Your task to perform on an android device: Clear all items from cart on target. Search for "logitech g pro" on target, select the first entry, and add it to the cart. Image 0: 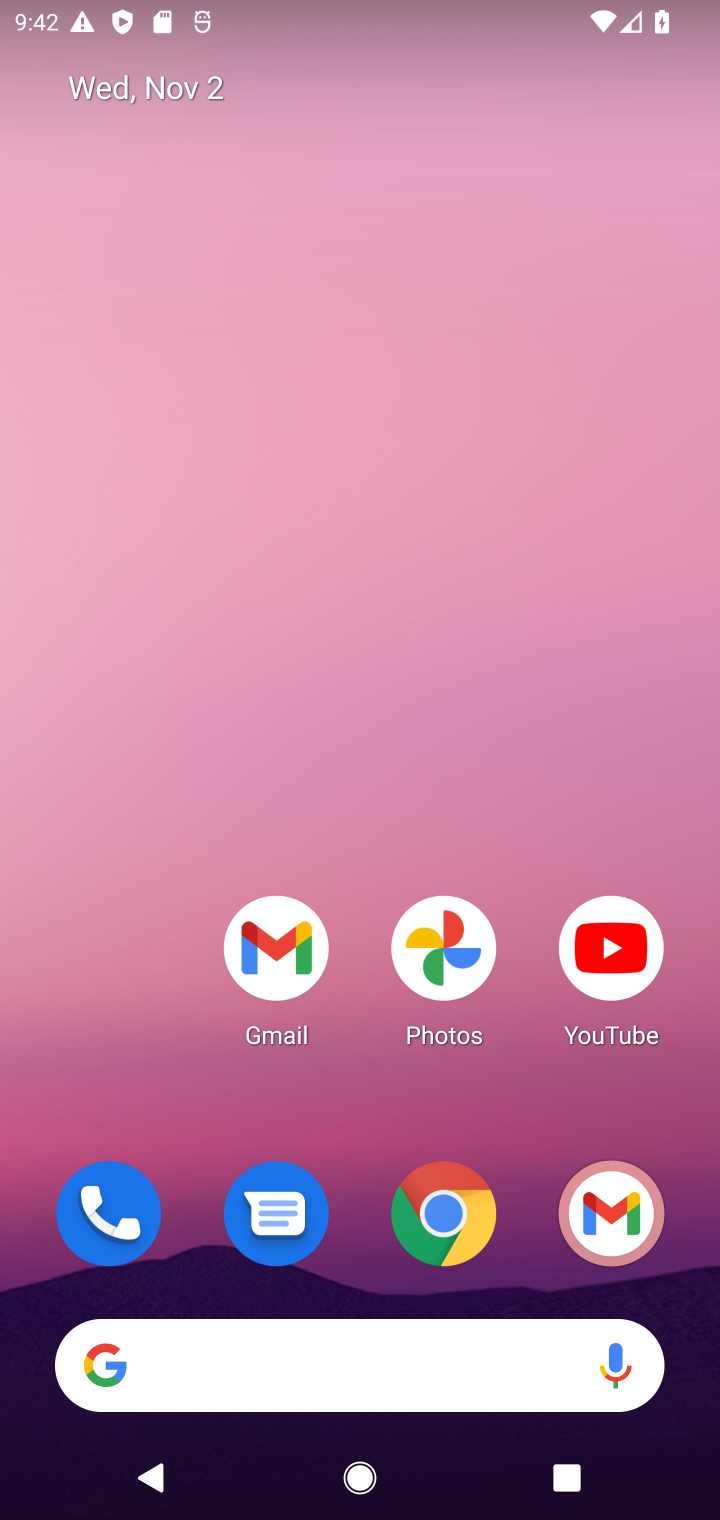
Step 0: click (455, 1220)
Your task to perform on an android device: Clear all items from cart on target. Search for "logitech g pro" on target, select the first entry, and add it to the cart. Image 1: 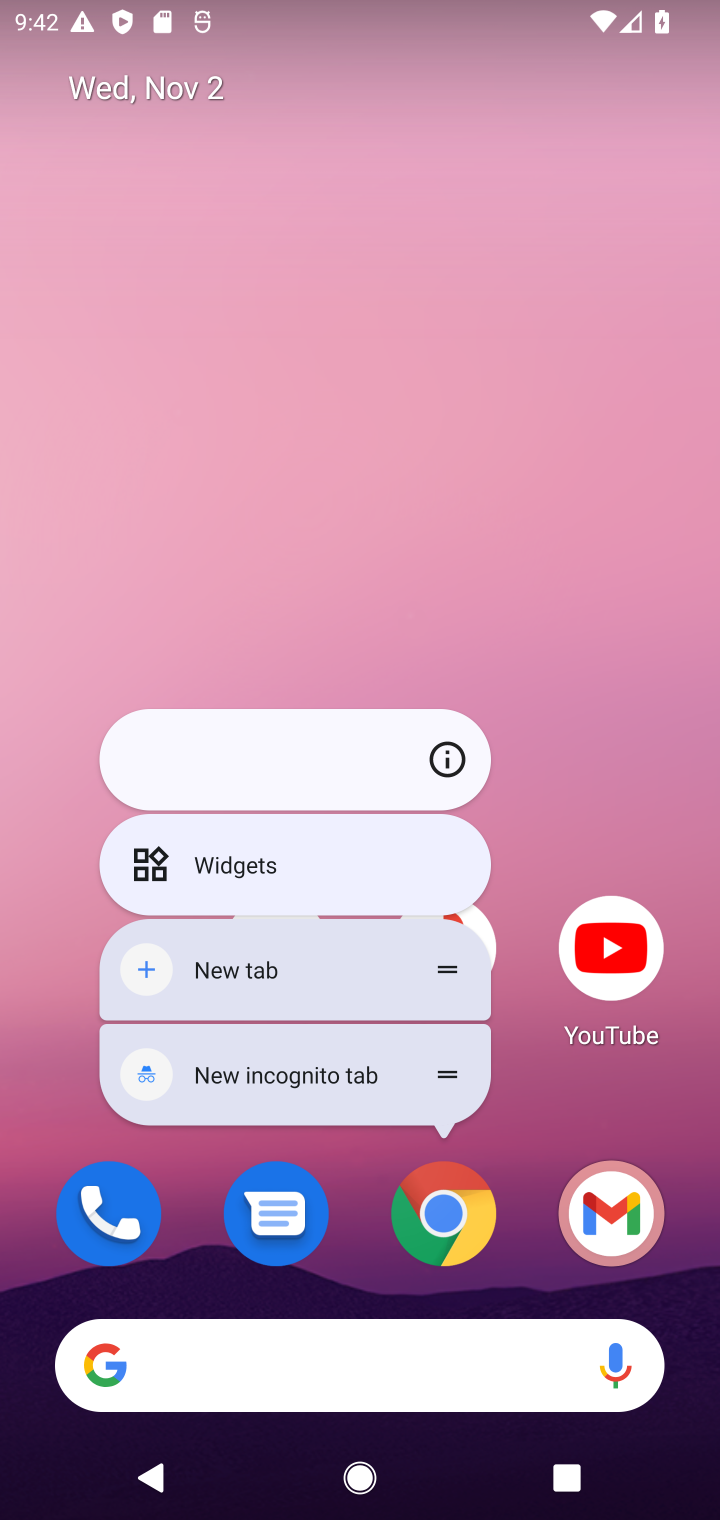
Step 1: click (455, 1220)
Your task to perform on an android device: Clear all items from cart on target. Search for "logitech g pro" on target, select the first entry, and add it to the cart. Image 2: 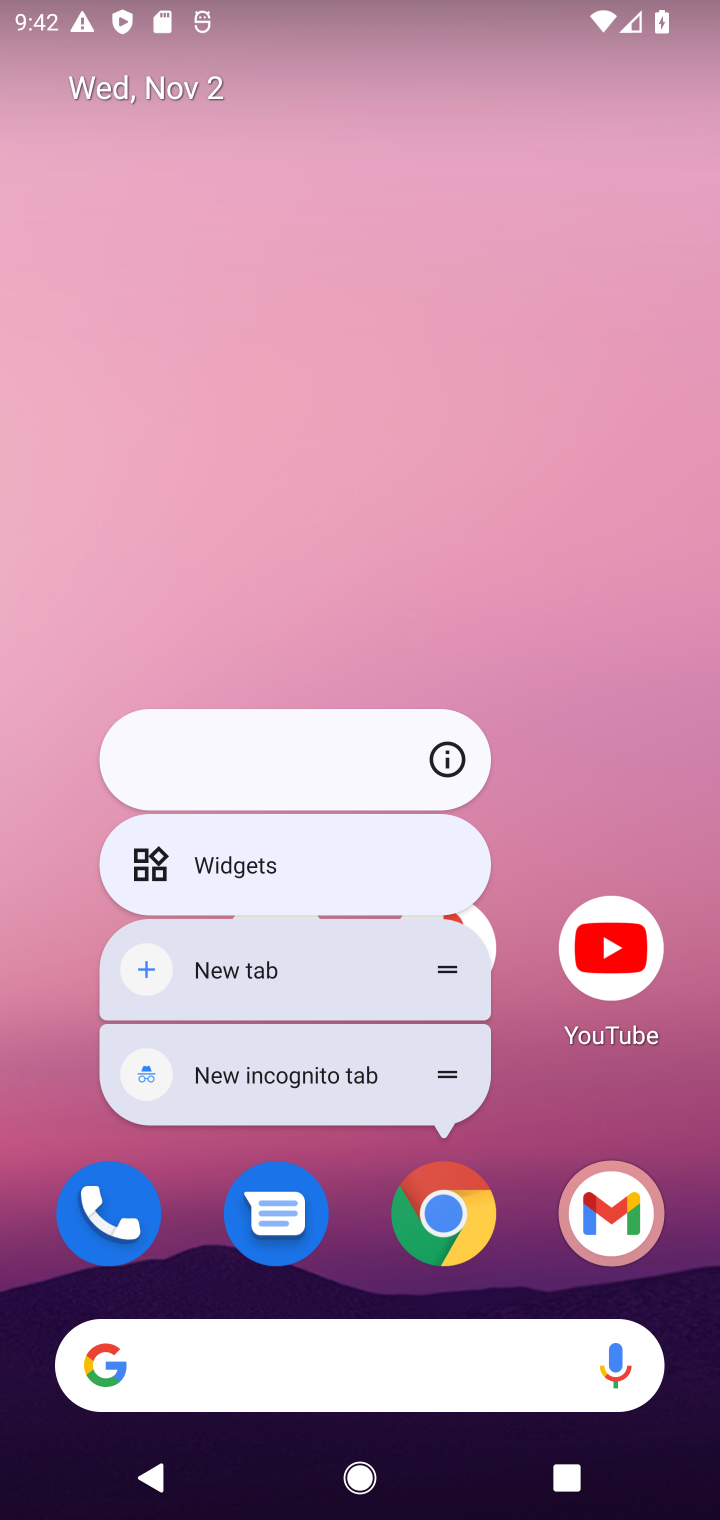
Step 2: click (455, 1220)
Your task to perform on an android device: Clear all items from cart on target. Search for "logitech g pro" on target, select the first entry, and add it to the cart. Image 3: 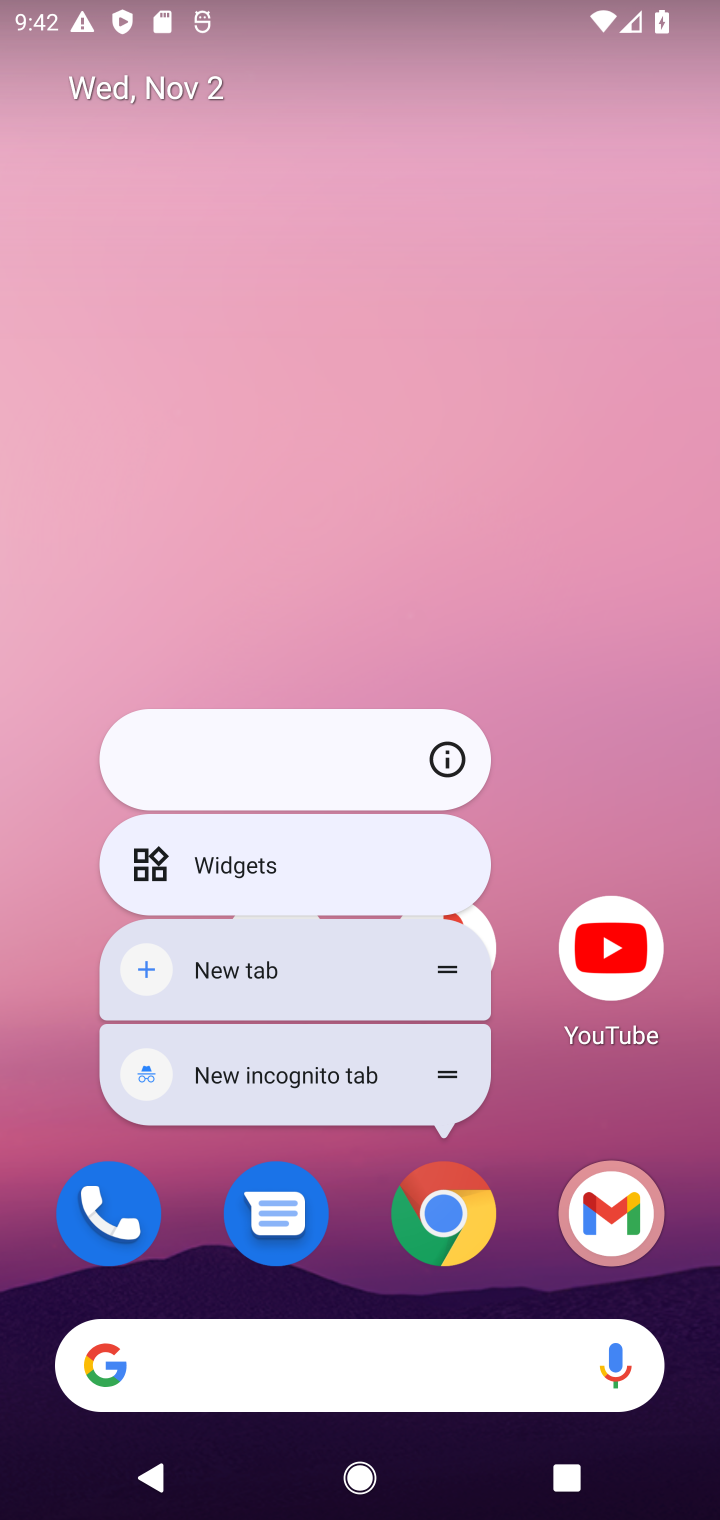
Step 3: click (455, 1220)
Your task to perform on an android device: Clear all items from cart on target. Search for "logitech g pro" on target, select the first entry, and add it to the cart. Image 4: 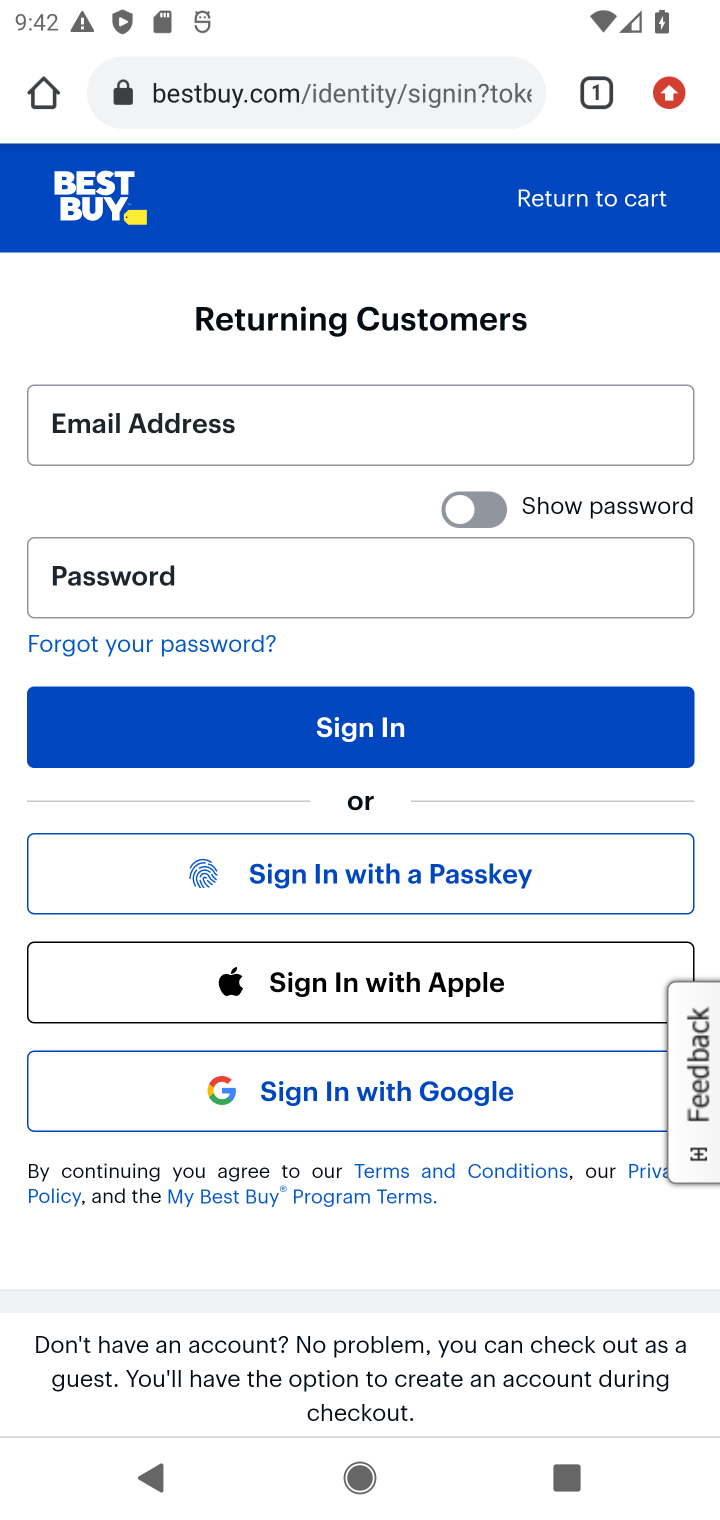
Step 4: click (323, 100)
Your task to perform on an android device: Clear all items from cart on target. Search for "logitech g pro" on target, select the first entry, and add it to the cart. Image 5: 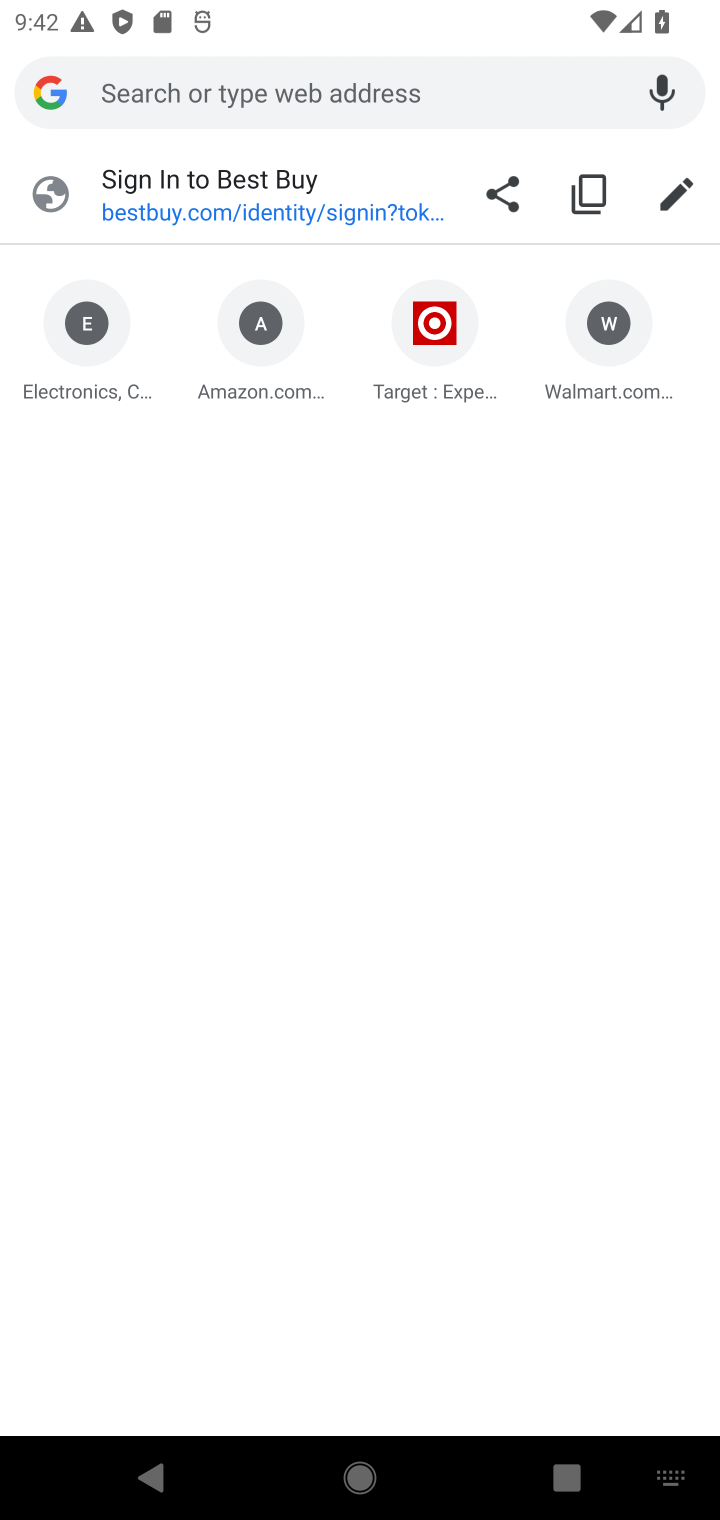
Step 5: click (430, 368)
Your task to perform on an android device: Clear all items from cart on target. Search for "logitech g pro" on target, select the first entry, and add it to the cart. Image 6: 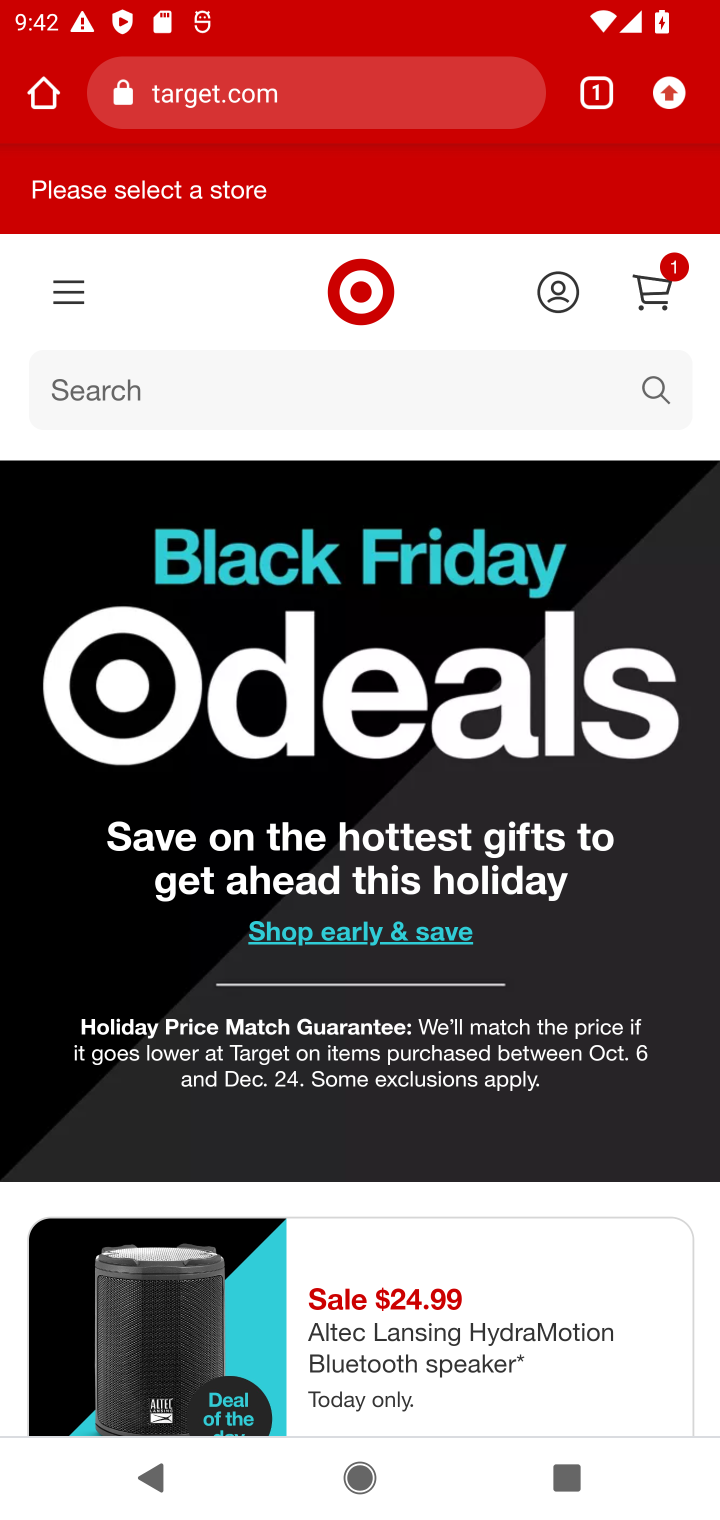
Step 6: click (668, 267)
Your task to perform on an android device: Clear all items from cart on target. Search for "logitech g pro" on target, select the first entry, and add it to the cart. Image 7: 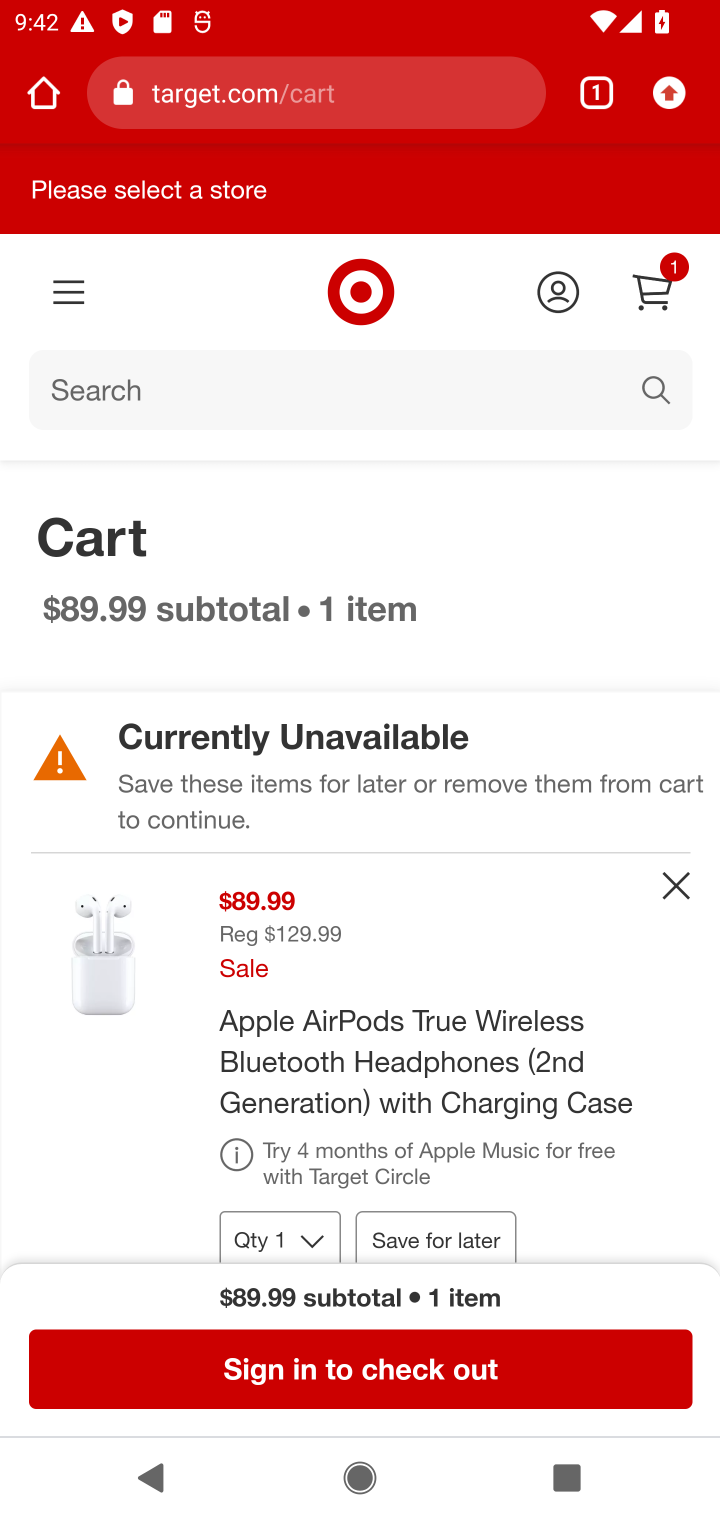
Step 7: click (658, 876)
Your task to perform on an android device: Clear all items from cart on target. Search for "logitech g pro" on target, select the first entry, and add it to the cart. Image 8: 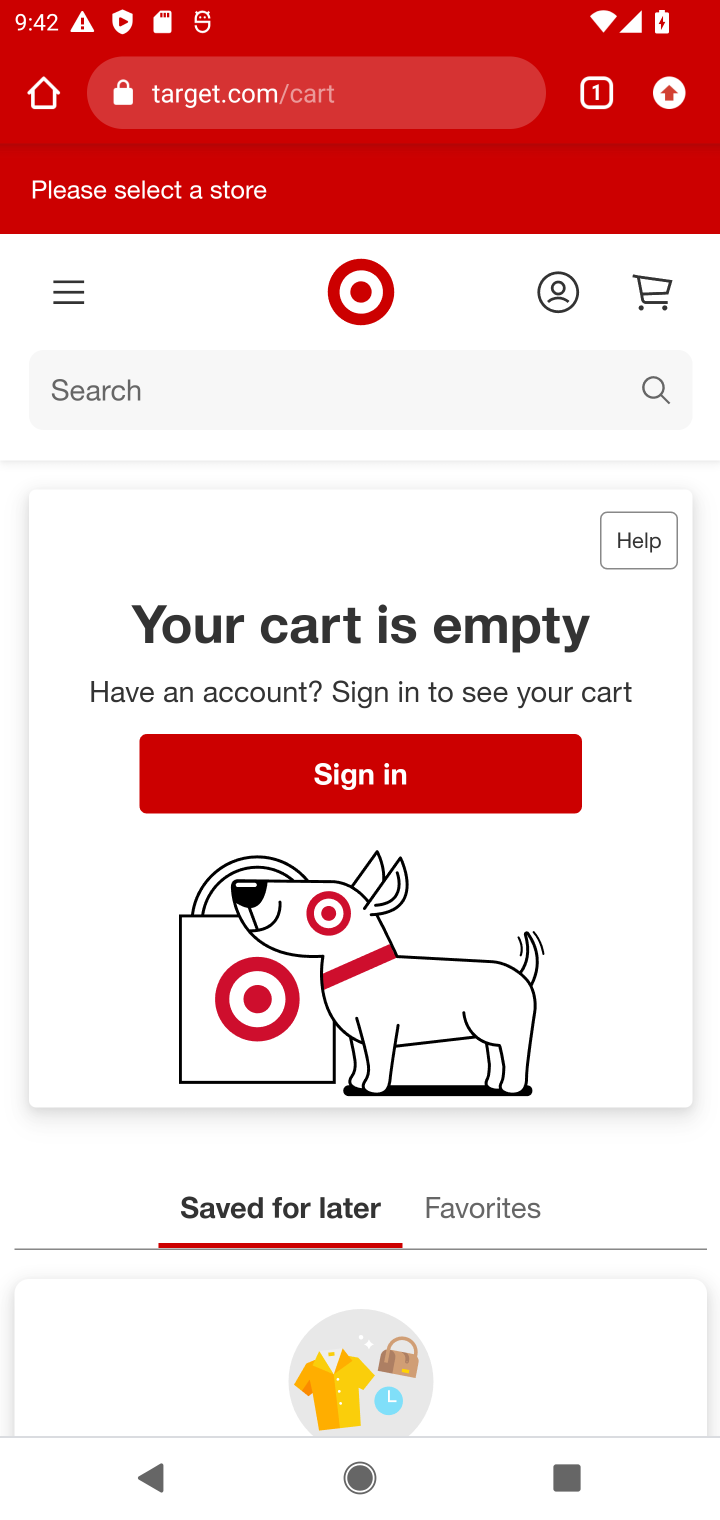
Step 8: click (646, 393)
Your task to perform on an android device: Clear all items from cart on target. Search for "logitech g pro" on target, select the first entry, and add it to the cart. Image 9: 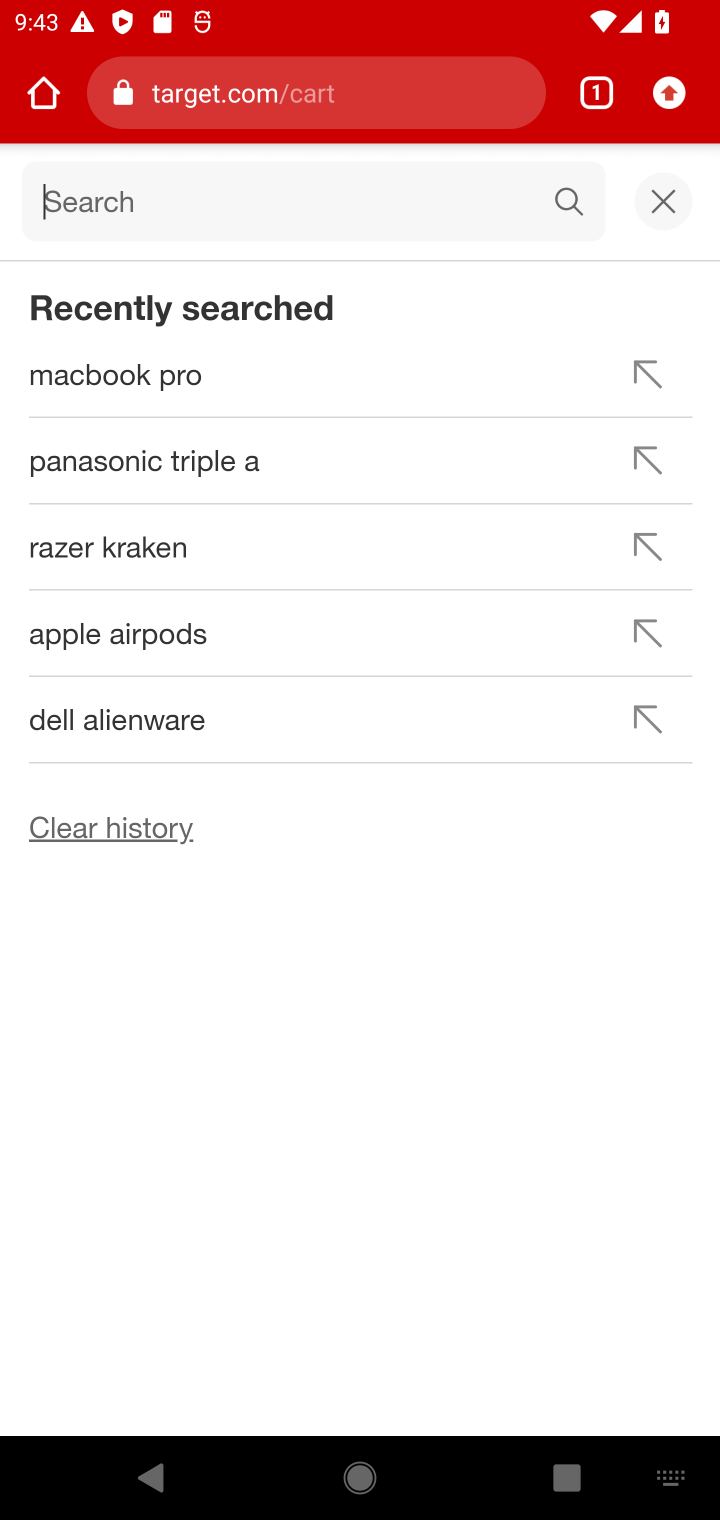
Step 9: type "logitech g pro"
Your task to perform on an android device: Clear all items from cart on target. Search for "logitech g pro" on target, select the first entry, and add it to the cart. Image 10: 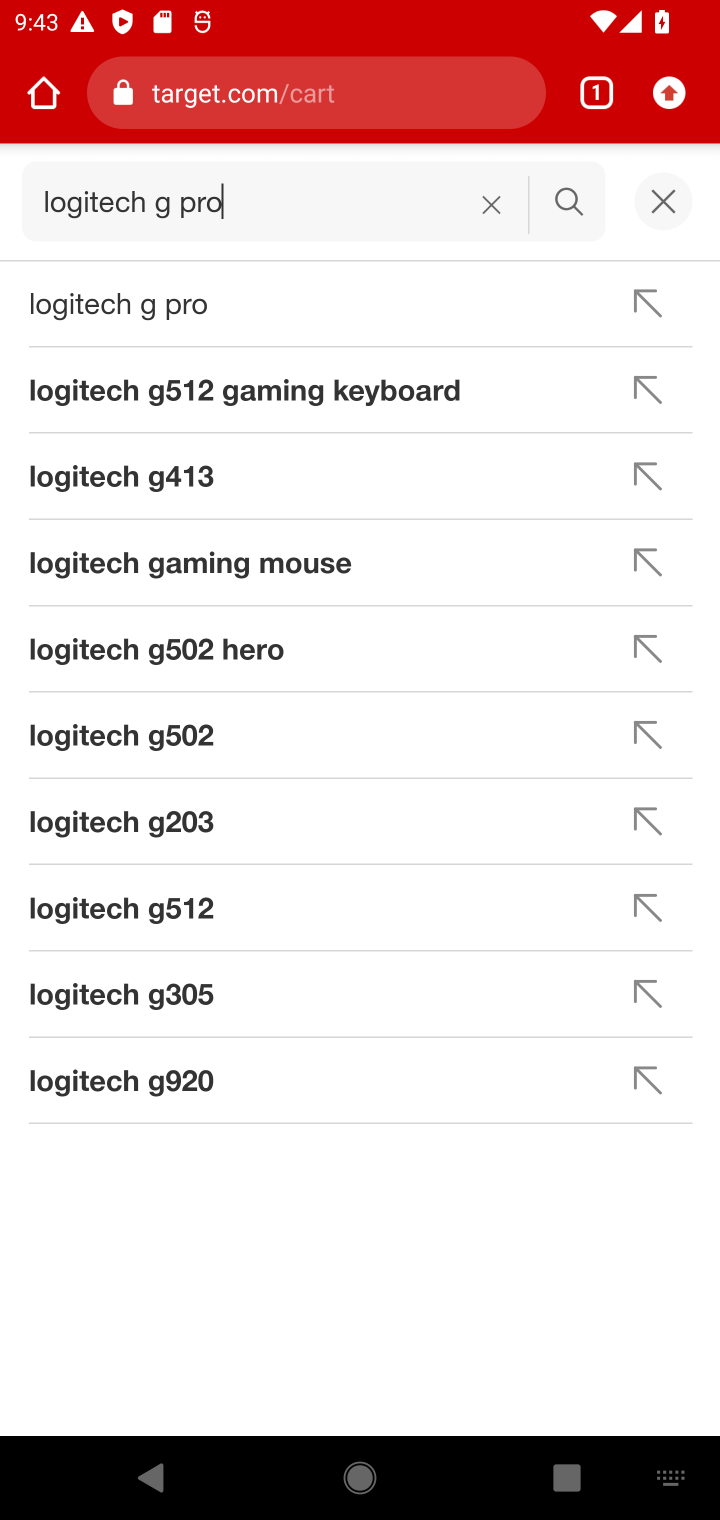
Step 10: click (170, 316)
Your task to perform on an android device: Clear all items from cart on target. Search for "logitech g pro" on target, select the first entry, and add it to the cart. Image 11: 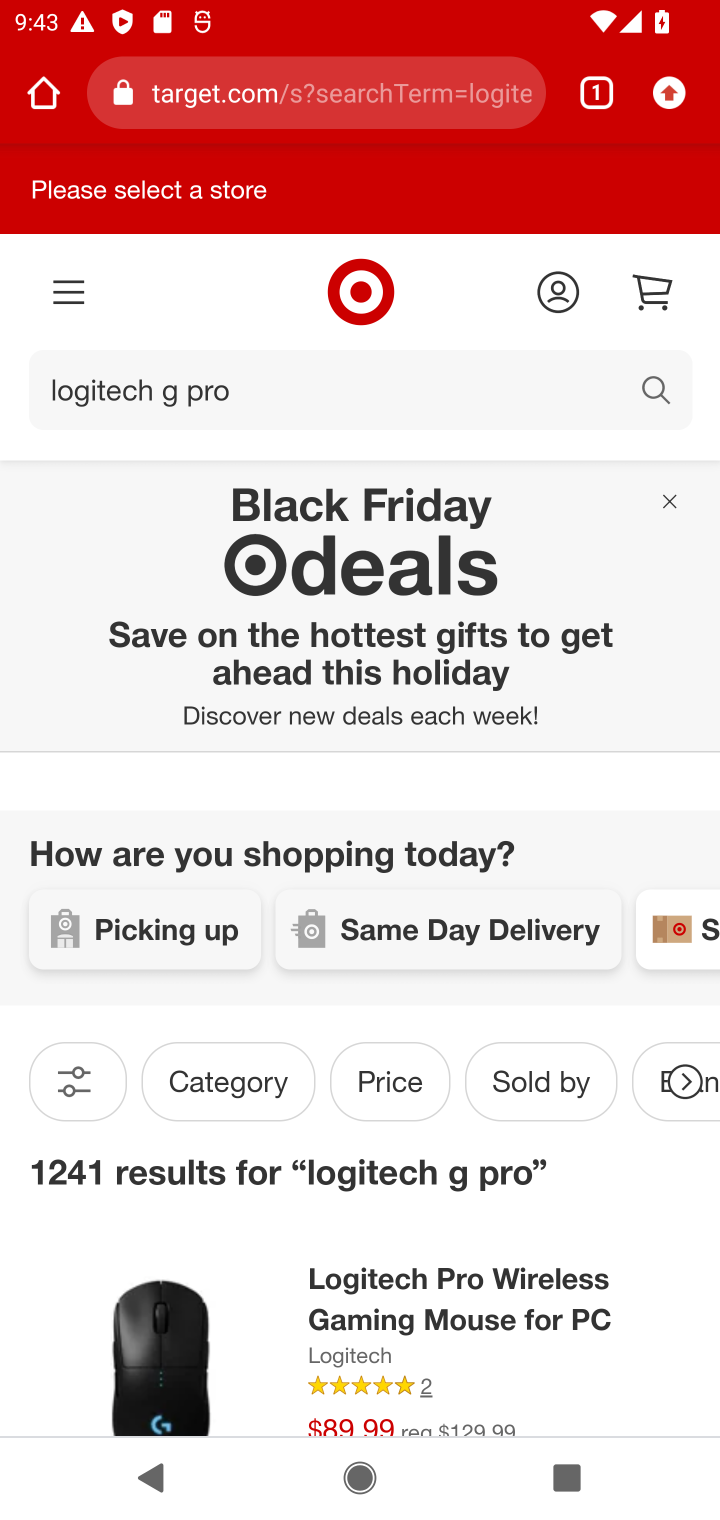
Step 11: click (386, 1315)
Your task to perform on an android device: Clear all items from cart on target. Search for "logitech g pro" on target, select the first entry, and add it to the cart. Image 12: 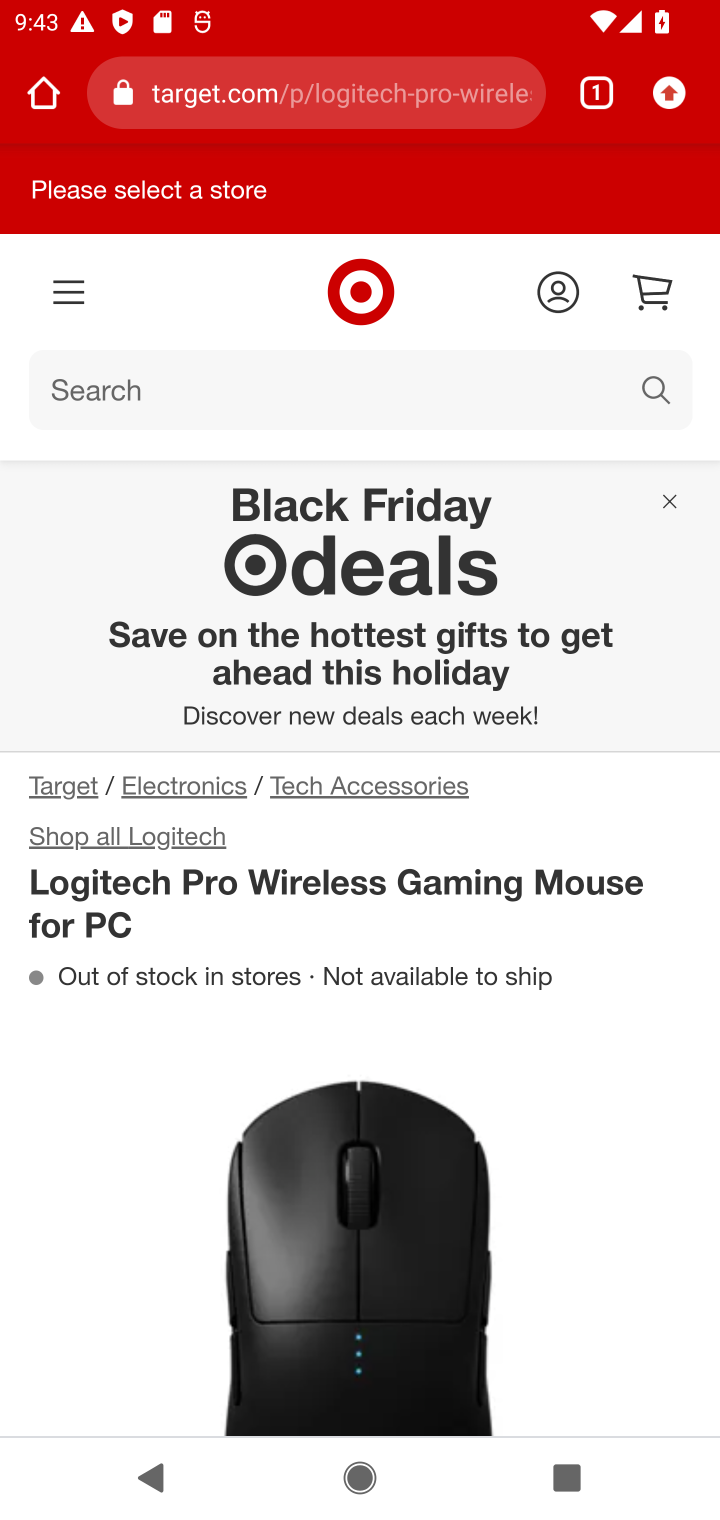
Step 12: drag from (607, 1291) to (629, 516)
Your task to perform on an android device: Clear all items from cart on target. Search for "logitech g pro" on target, select the first entry, and add it to the cart. Image 13: 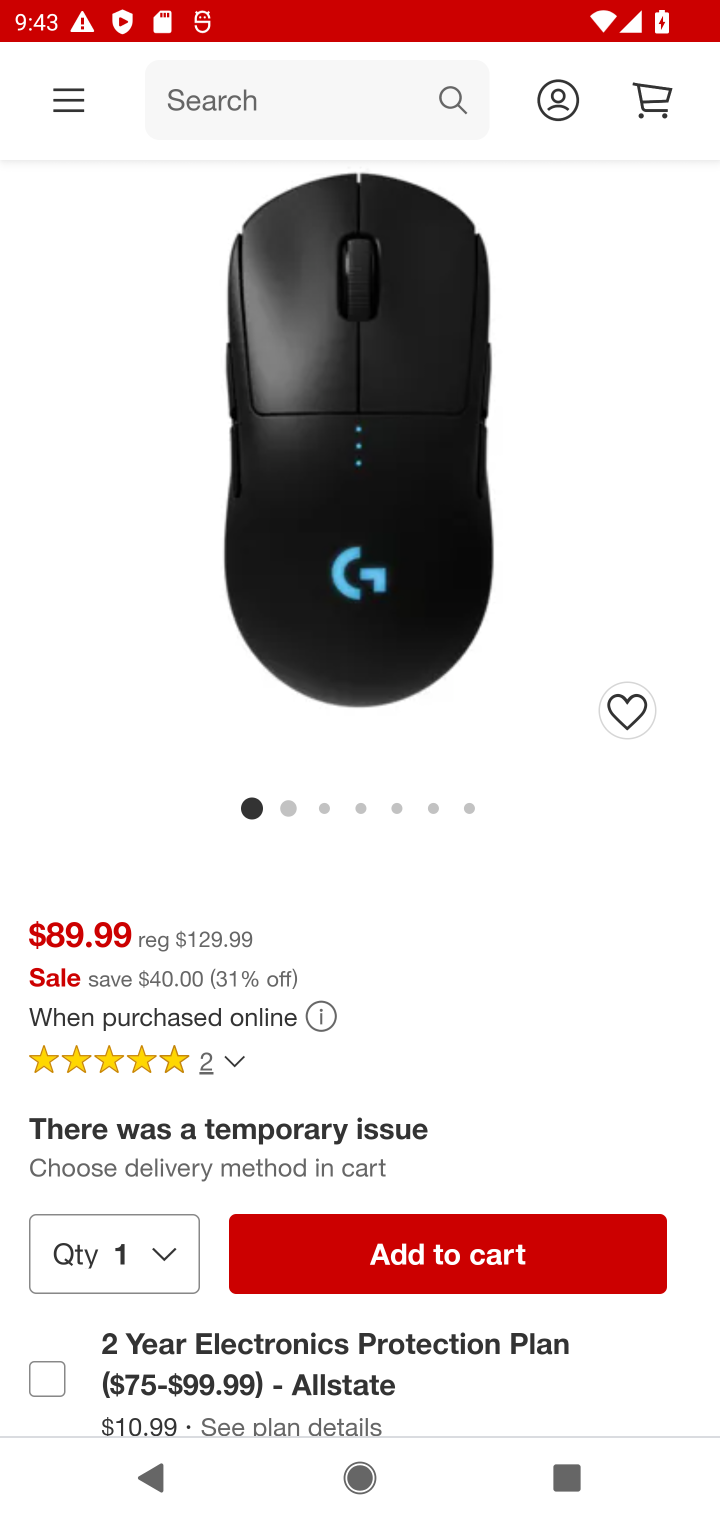
Step 13: click (427, 1241)
Your task to perform on an android device: Clear all items from cart on target. Search for "logitech g pro" on target, select the first entry, and add it to the cart. Image 14: 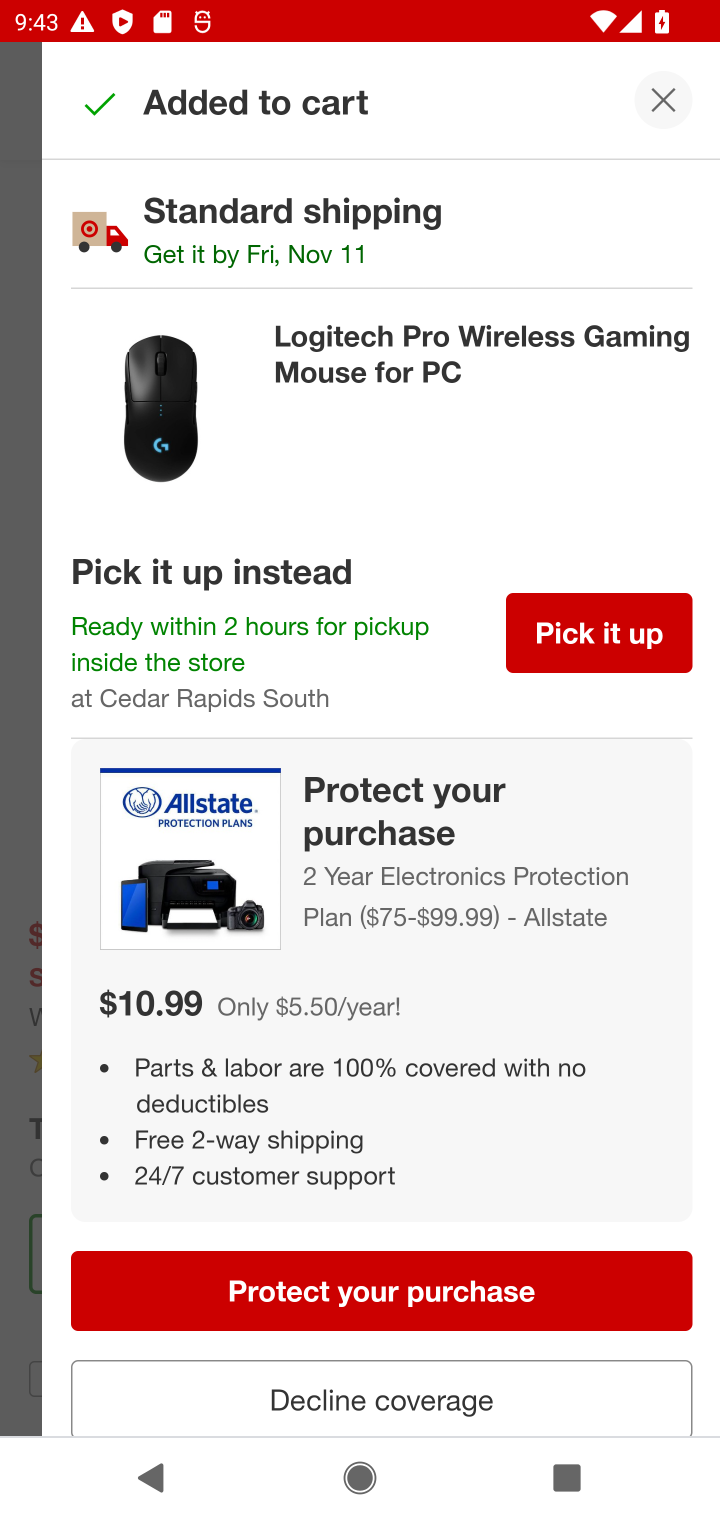
Step 14: click (657, 98)
Your task to perform on an android device: Clear all items from cart on target. Search for "logitech g pro" on target, select the first entry, and add it to the cart. Image 15: 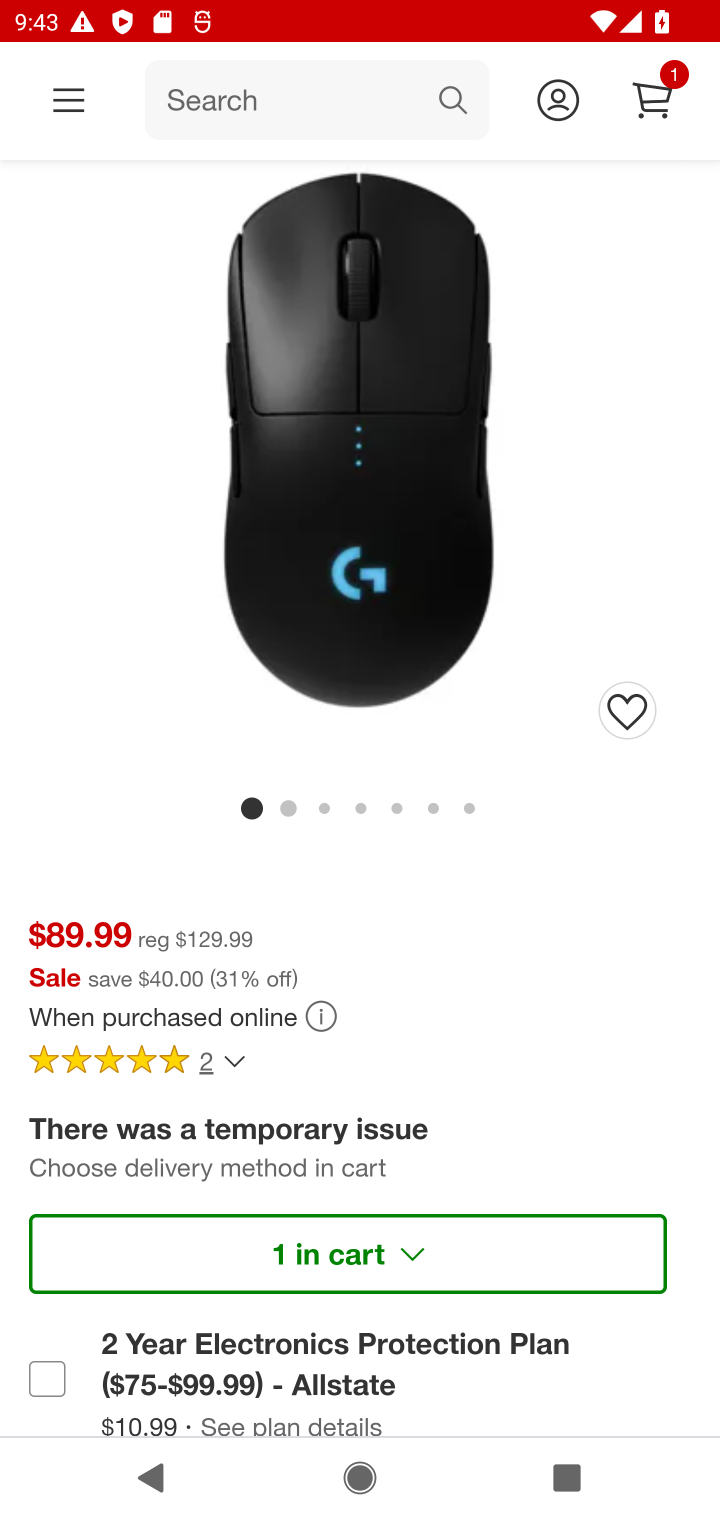
Step 15: task complete